Your task to perform on an android device: toggle wifi Image 0: 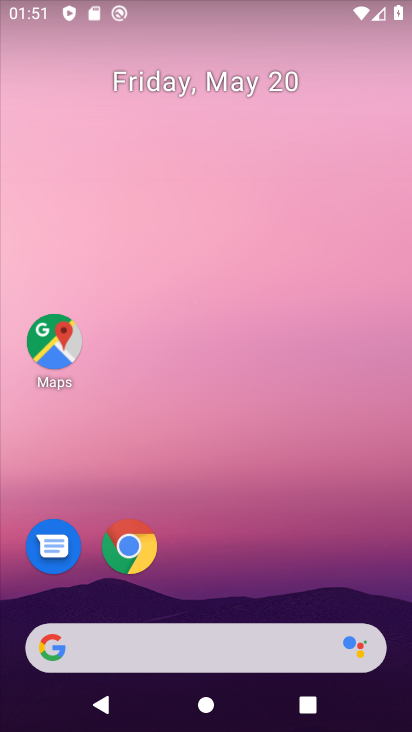
Step 0: click (168, 76)
Your task to perform on an android device: toggle wifi Image 1: 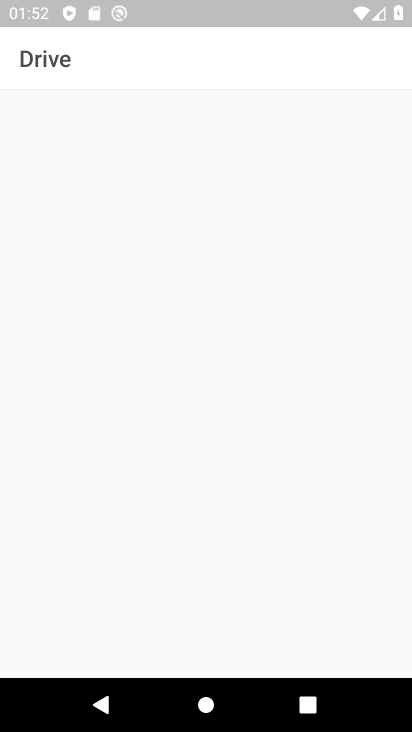
Step 1: press home button
Your task to perform on an android device: toggle wifi Image 2: 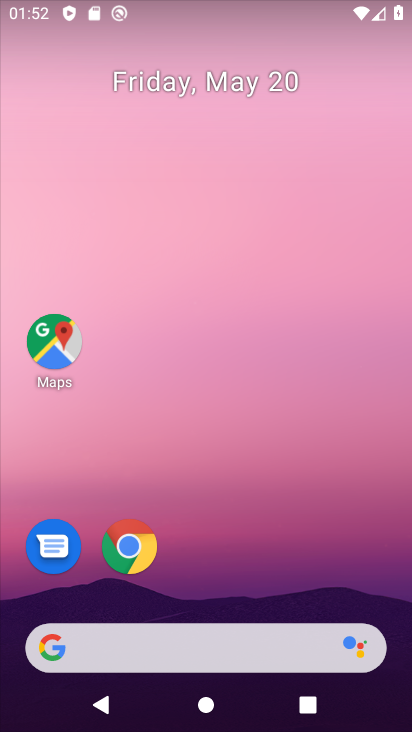
Step 2: drag from (223, 598) to (194, 64)
Your task to perform on an android device: toggle wifi Image 3: 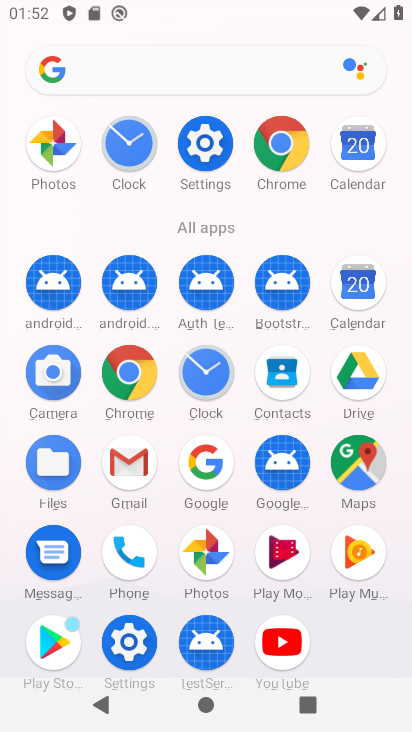
Step 3: click (133, 649)
Your task to perform on an android device: toggle wifi Image 4: 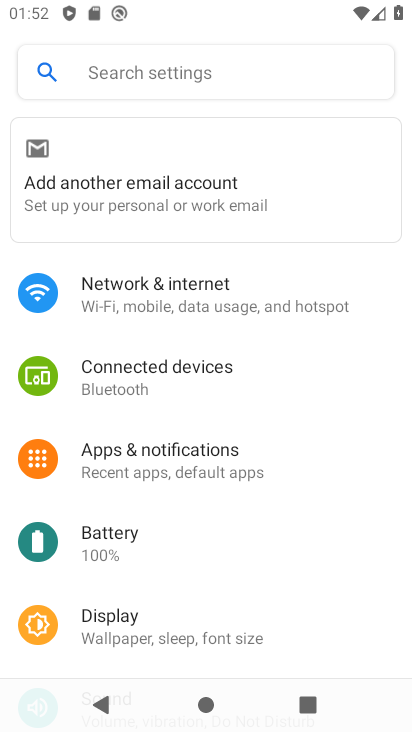
Step 4: click (146, 303)
Your task to perform on an android device: toggle wifi Image 5: 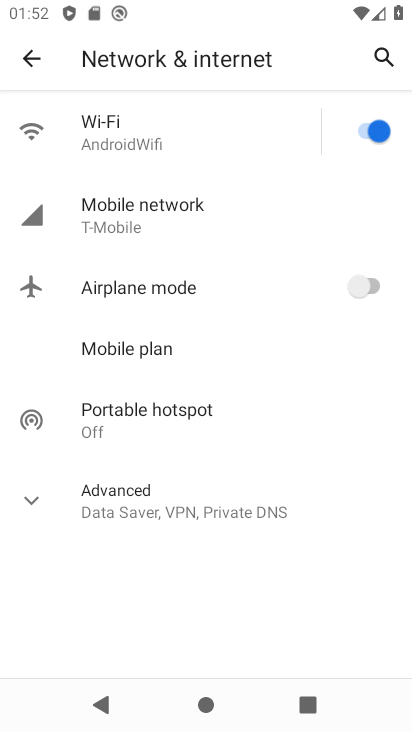
Step 5: click (371, 141)
Your task to perform on an android device: toggle wifi Image 6: 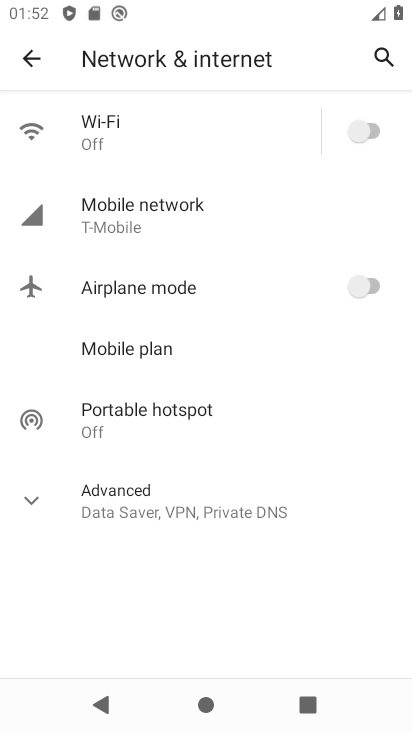
Step 6: task complete